Your task to perform on an android device: set default search engine in the chrome app Image 0: 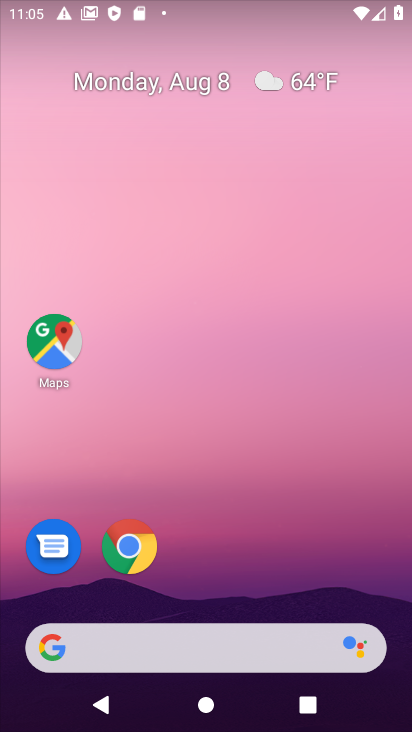
Step 0: press home button
Your task to perform on an android device: set default search engine in the chrome app Image 1: 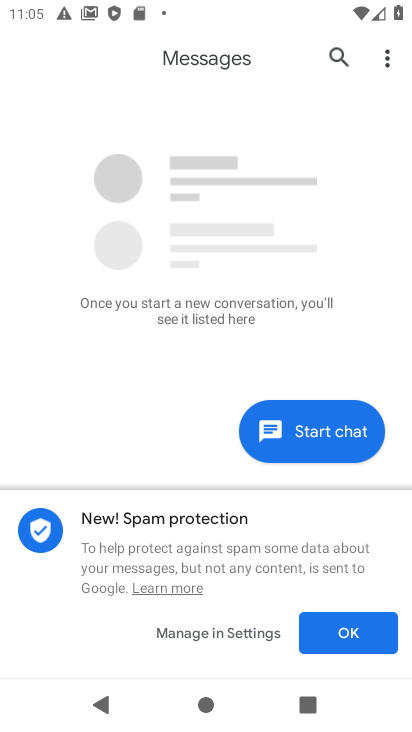
Step 1: press home button
Your task to perform on an android device: set default search engine in the chrome app Image 2: 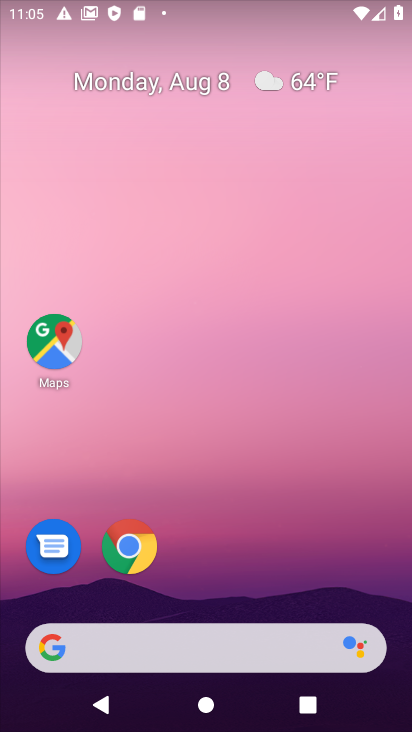
Step 2: press home button
Your task to perform on an android device: set default search engine in the chrome app Image 3: 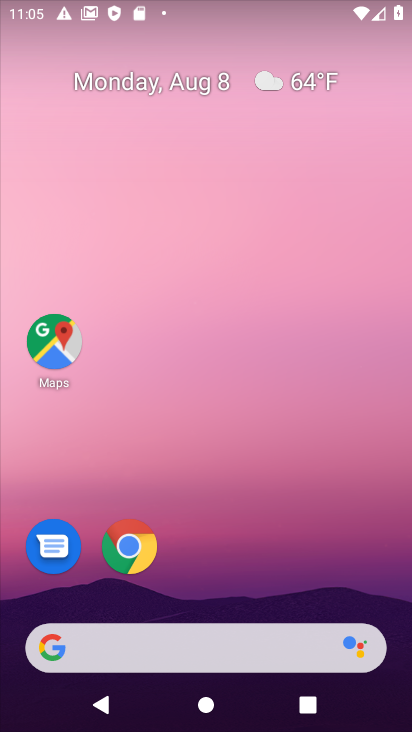
Step 3: drag from (240, 587) to (266, 22)
Your task to perform on an android device: set default search engine in the chrome app Image 4: 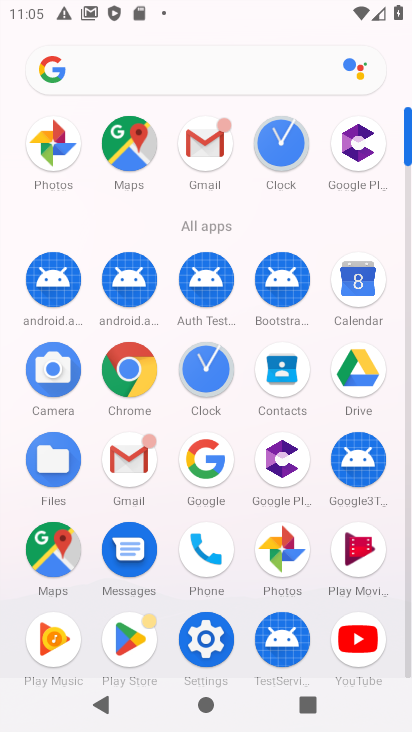
Step 4: click (125, 363)
Your task to perform on an android device: set default search engine in the chrome app Image 5: 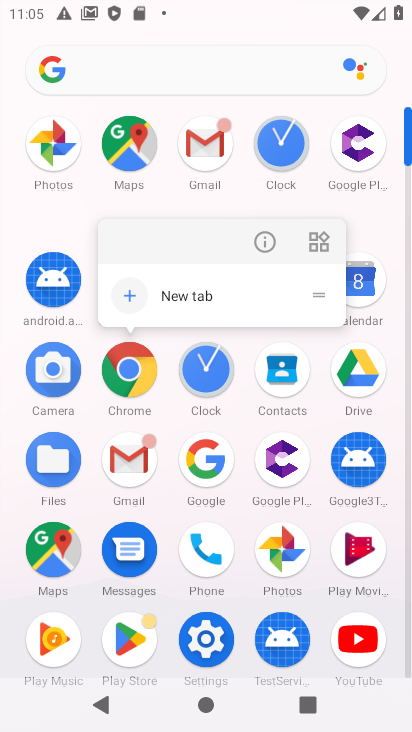
Step 5: click (136, 365)
Your task to perform on an android device: set default search engine in the chrome app Image 6: 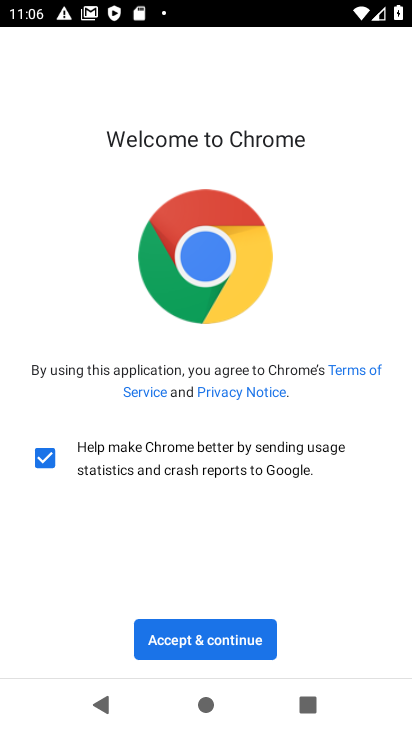
Step 6: click (208, 634)
Your task to perform on an android device: set default search engine in the chrome app Image 7: 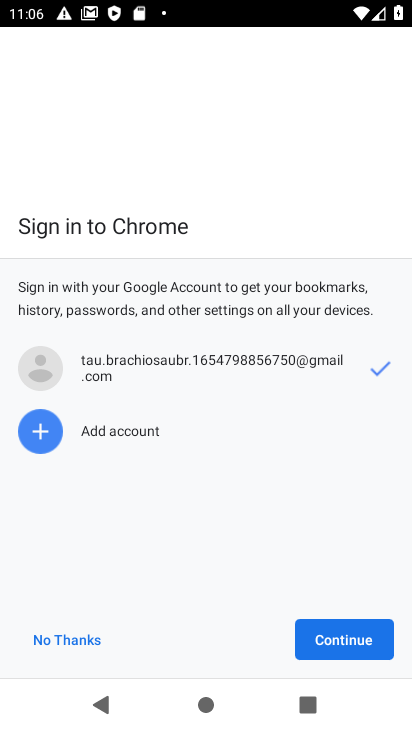
Step 7: click (350, 634)
Your task to perform on an android device: set default search engine in the chrome app Image 8: 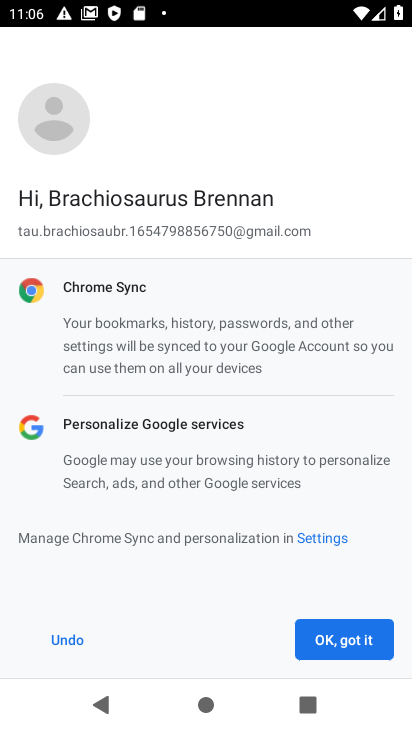
Step 8: click (366, 637)
Your task to perform on an android device: set default search engine in the chrome app Image 9: 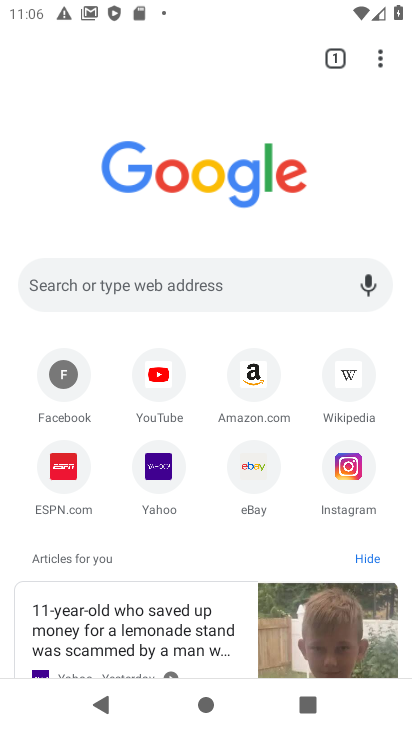
Step 9: click (383, 57)
Your task to perform on an android device: set default search engine in the chrome app Image 10: 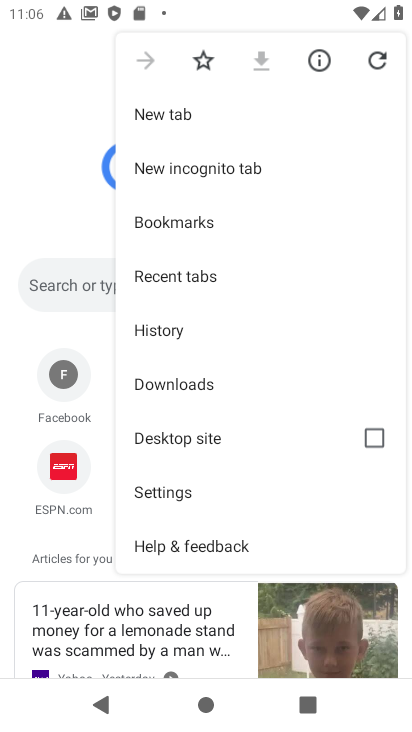
Step 10: click (195, 489)
Your task to perform on an android device: set default search engine in the chrome app Image 11: 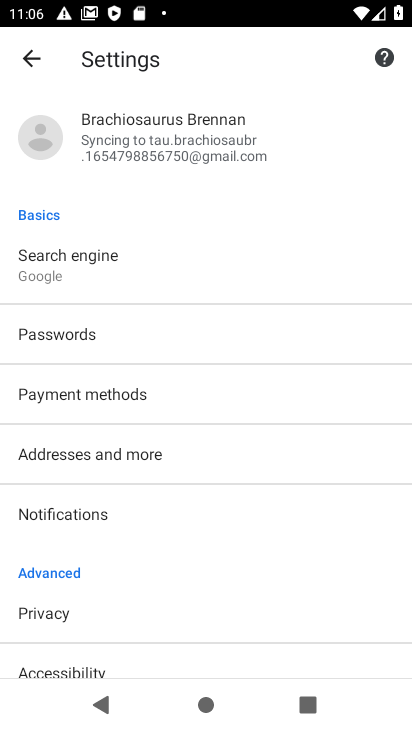
Step 11: click (102, 272)
Your task to perform on an android device: set default search engine in the chrome app Image 12: 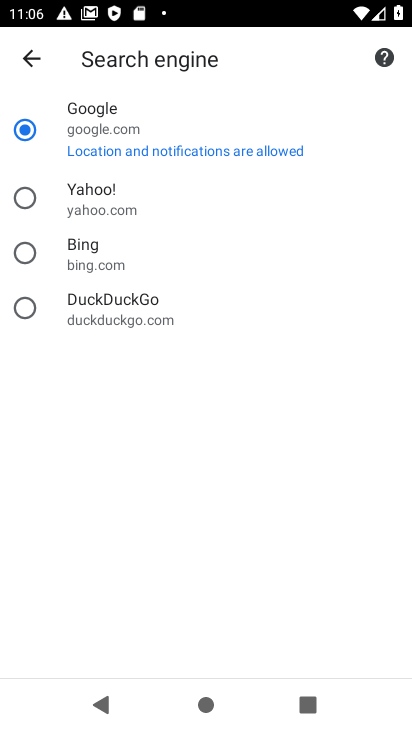
Step 12: click (29, 247)
Your task to perform on an android device: set default search engine in the chrome app Image 13: 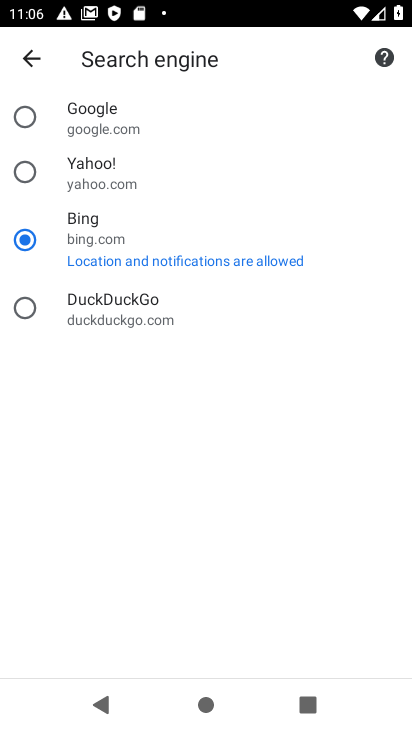
Step 13: task complete